Your task to perform on an android device: see sites visited before in the chrome app Image 0: 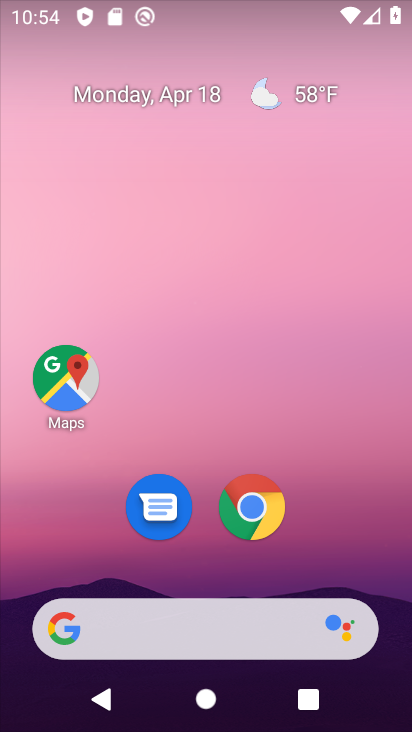
Step 0: click (245, 519)
Your task to perform on an android device: see sites visited before in the chrome app Image 1: 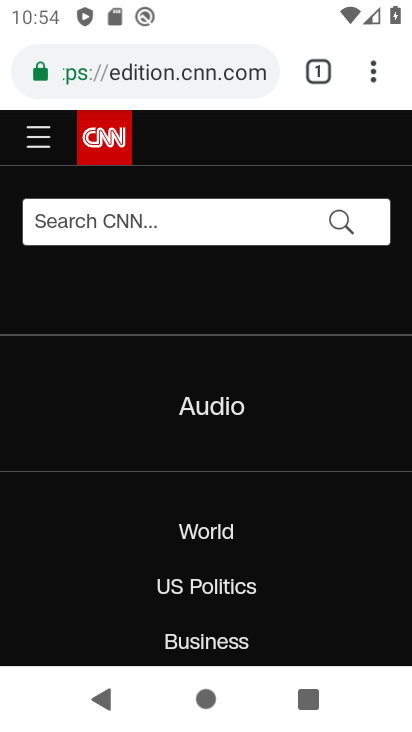
Step 1: click (364, 64)
Your task to perform on an android device: see sites visited before in the chrome app Image 2: 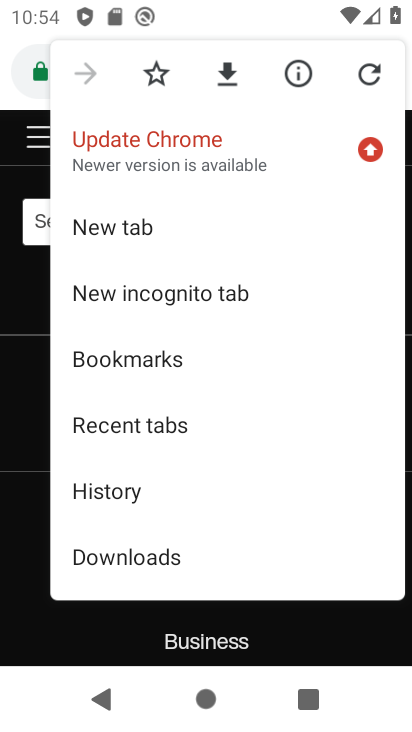
Step 2: click (124, 421)
Your task to perform on an android device: see sites visited before in the chrome app Image 3: 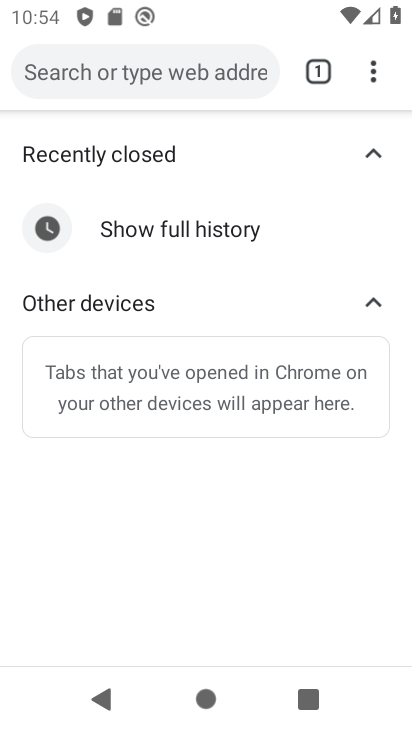
Step 3: task complete